Your task to perform on an android device: See recent photos Image 0: 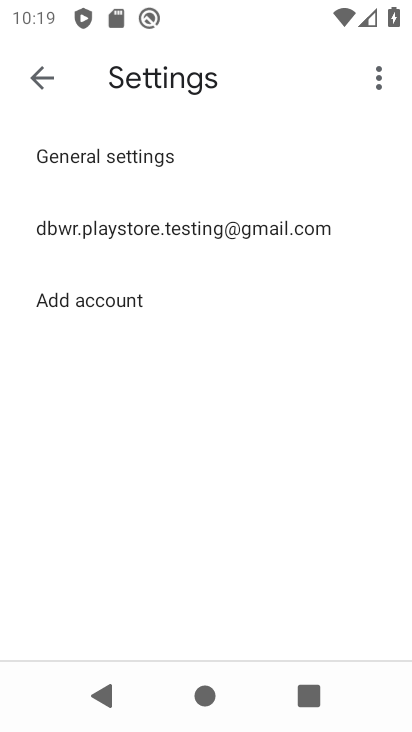
Step 0: press back button
Your task to perform on an android device: See recent photos Image 1: 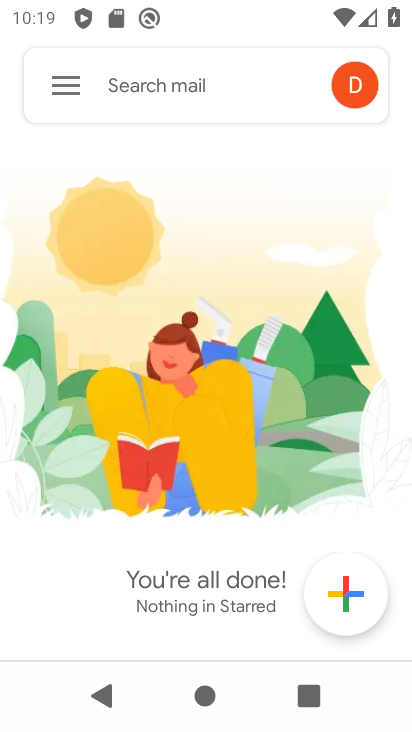
Step 1: press back button
Your task to perform on an android device: See recent photos Image 2: 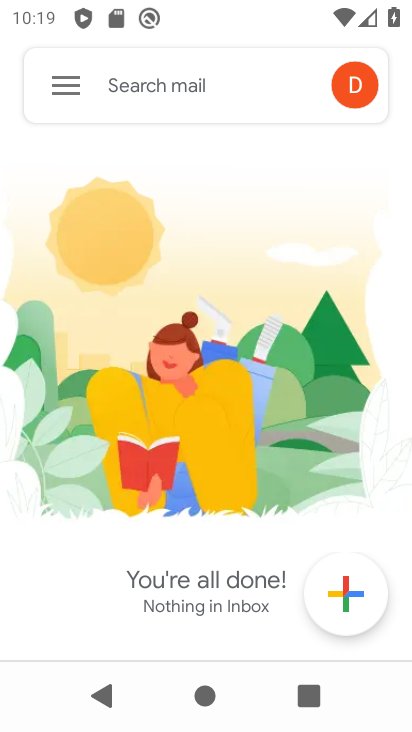
Step 2: press back button
Your task to perform on an android device: See recent photos Image 3: 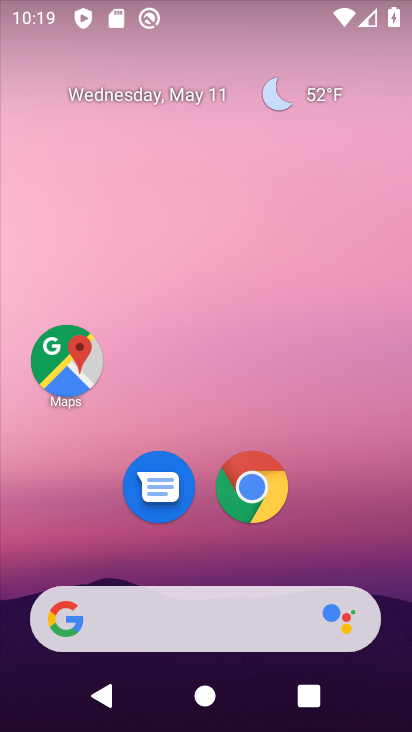
Step 3: drag from (362, 541) to (287, 16)
Your task to perform on an android device: See recent photos Image 4: 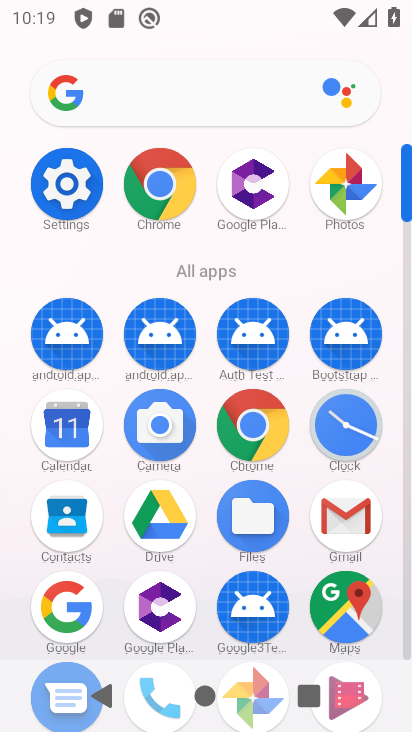
Step 4: drag from (2, 605) to (19, 268)
Your task to perform on an android device: See recent photos Image 5: 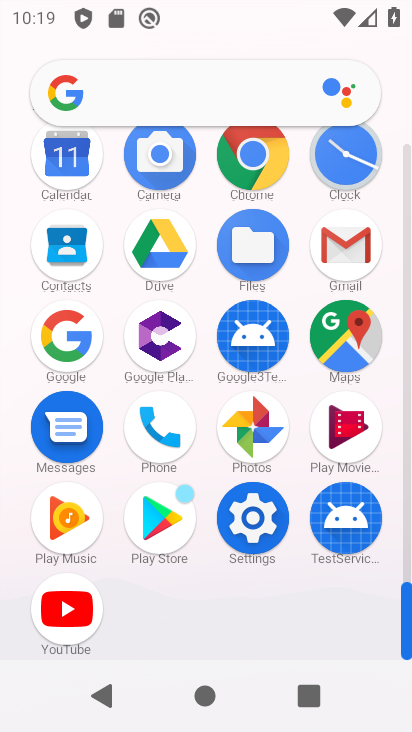
Step 5: click (251, 425)
Your task to perform on an android device: See recent photos Image 6: 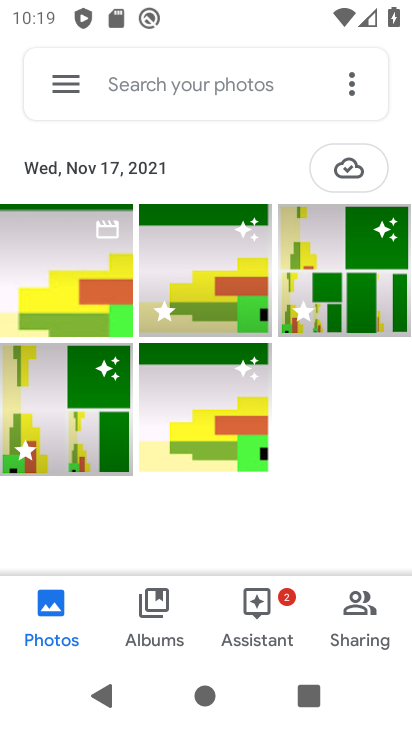
Step 6: task complete